Your task to perform on an android device: What's on my calendar today? Image 0: 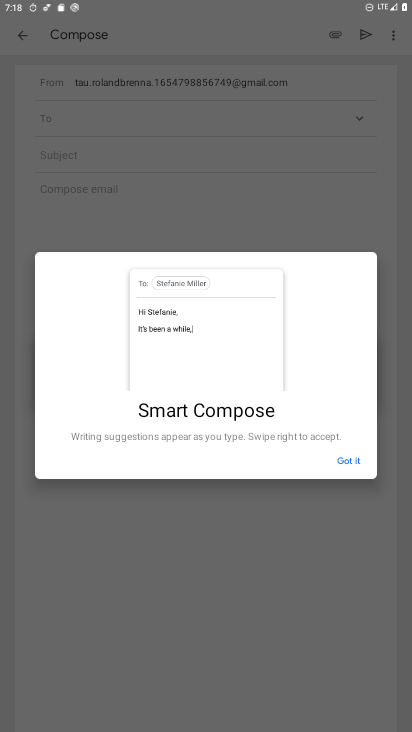
Step 0: press home button
Your task to perform on an android device: What's on my calendar today? Image 1: 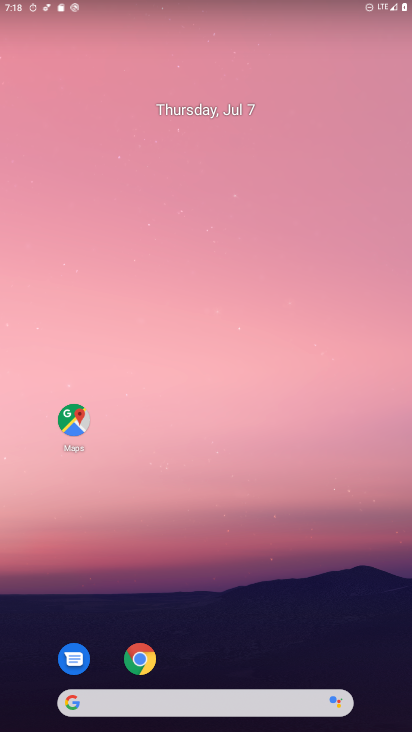
Step 1: drag from (361, 587) to (209, 23)
Your task to perform on an android device: What's on my calendar today? Image 2: 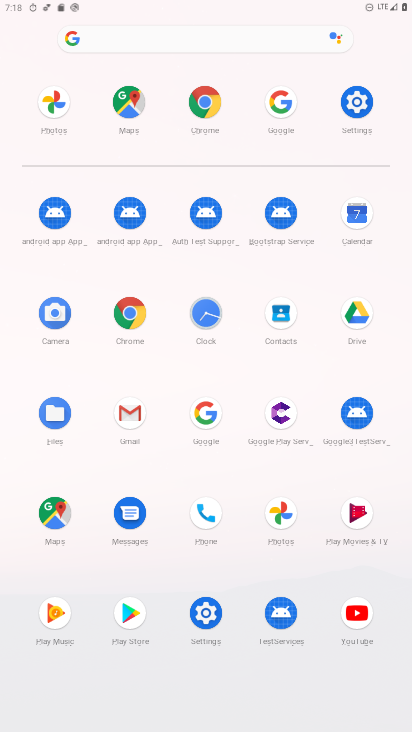
Step 2: click (352, 212)
Your task to perform on an android device: What's on my calendar today? Image 3: 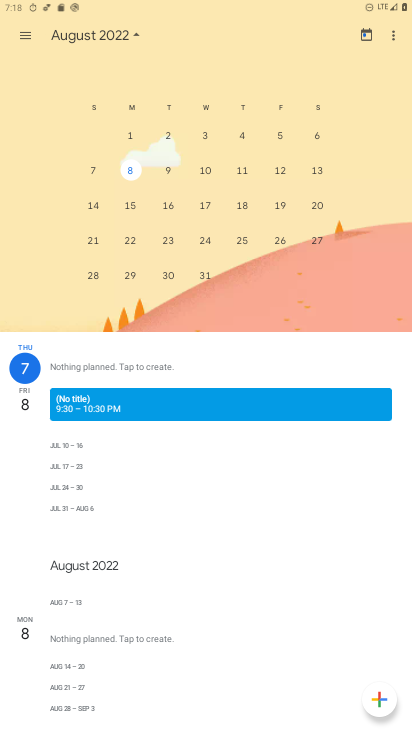
Step 3: task complete